Your task to perform on an android device: Open calendar and show me the third week of next month Image 0: 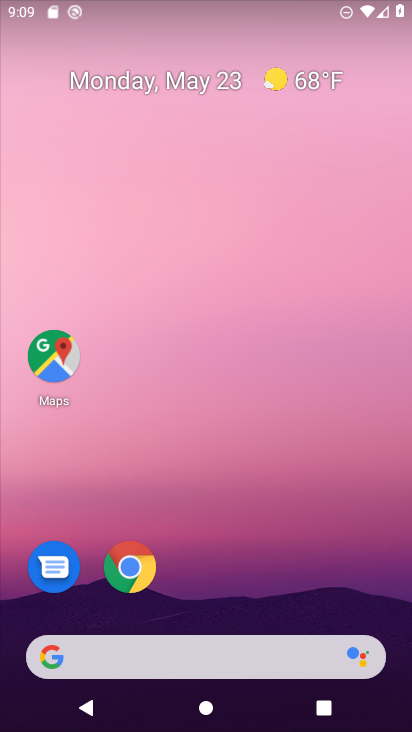
Step 0: drag from (202, 618) to (235, 200)
Your task to perform on an android device: Open calendar and show me the third week of next month Image 1: 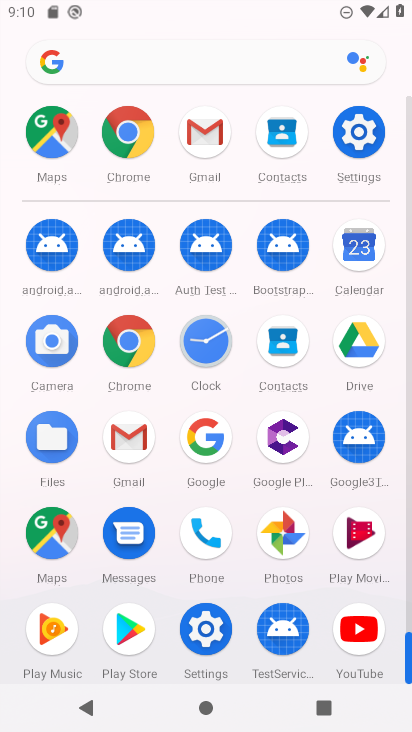
Step 1: click (361, 238)
Your task to perform on an android device: Open calendar and show me the third week of next month Image 2: 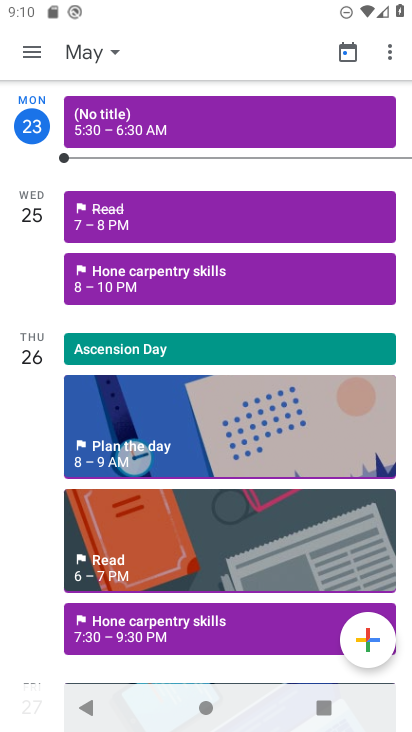
Step 2: drag from (223, 572) to (230, 349)
Your task to perform on an android device: Open calendar and show me the third week of next month Image 3: 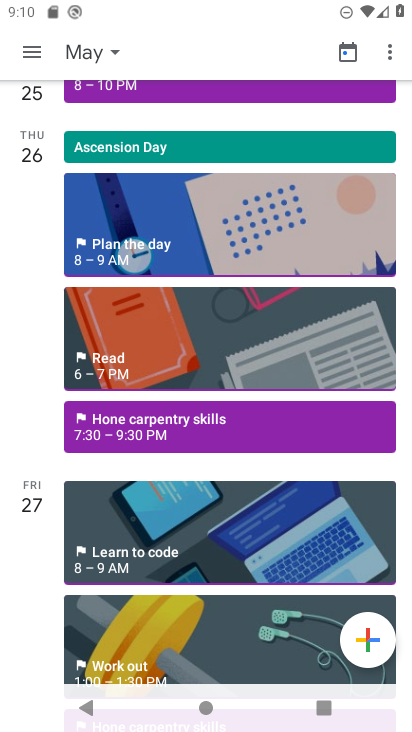
Step 3: drag from (245, 263) to (233, 579)
Your task to perform on an android device: Open calendar and show me the third week of next month Image 4: 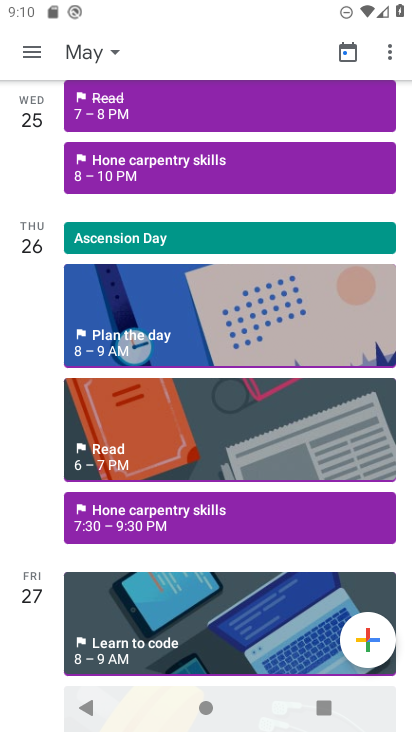
Step 4: click (117, 66)
Your task to perform on an android device: Open calendar and show me the third week of next month Image 5: 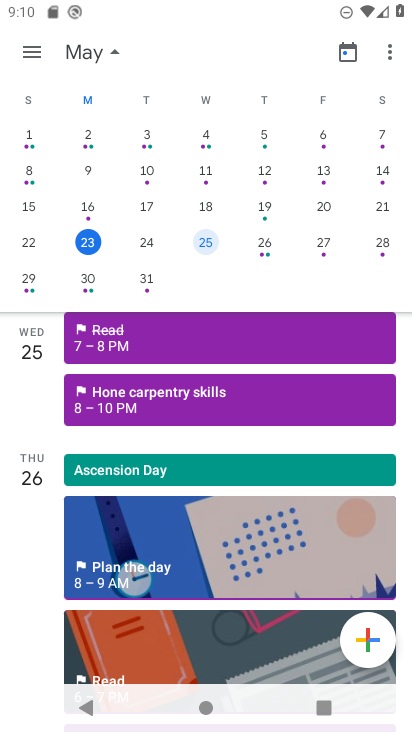
Step 5: drag from (354, 220) to (37, 119)
Your task to perform on an android device: Open calendar and show me the third week of next month Image 6: 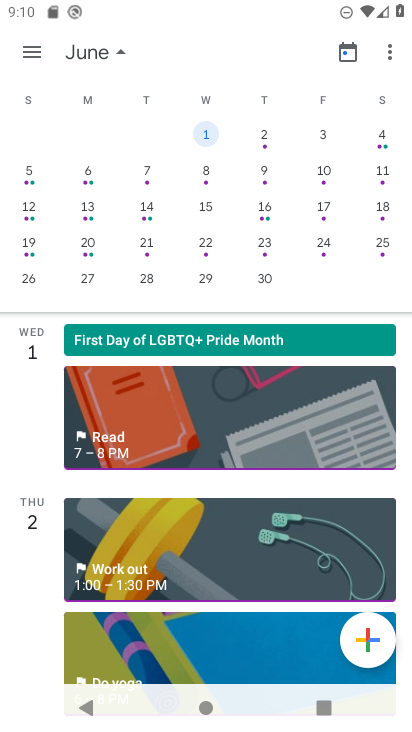
Step 6: drag from (347, 201) to (33, 211)
Your task to perform on an android device: Open calendar and show me the third week of next month Image 7: 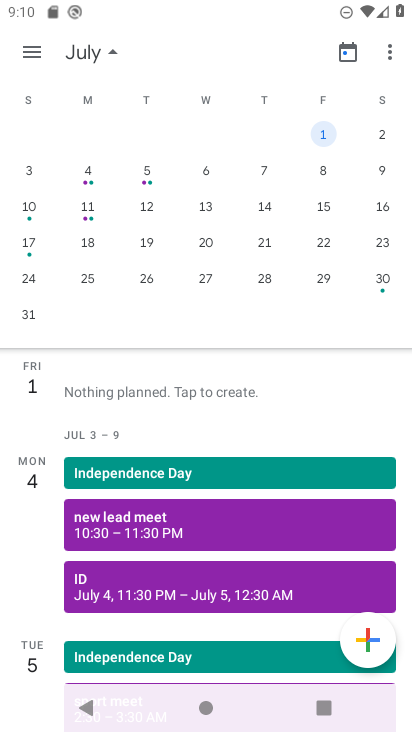
Step 7: drag from (30, 208) to (404, 249)
Your task to perform on an android device: Open calendar and show me the third week of next month Image 8: 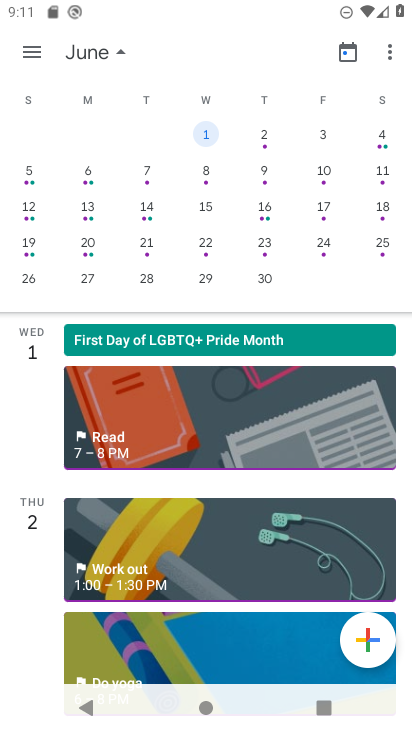
Step 8: click (210, 207)
Your task to perform on an android device: Open calendar and show me the third week of next month Image 9: 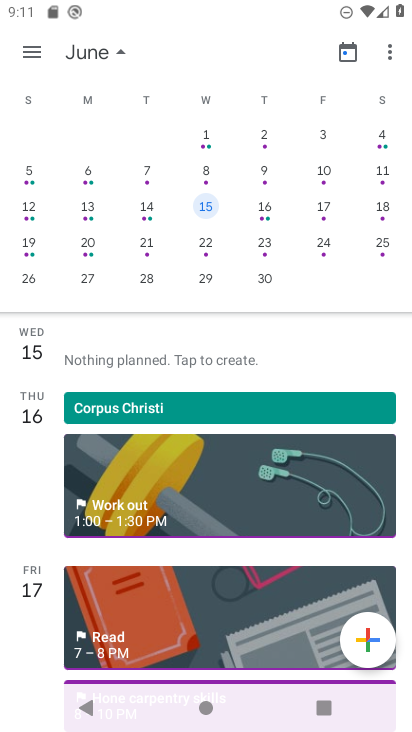
Step 9: task complete